Your task to perform on an android device: Go to settings Image 0: 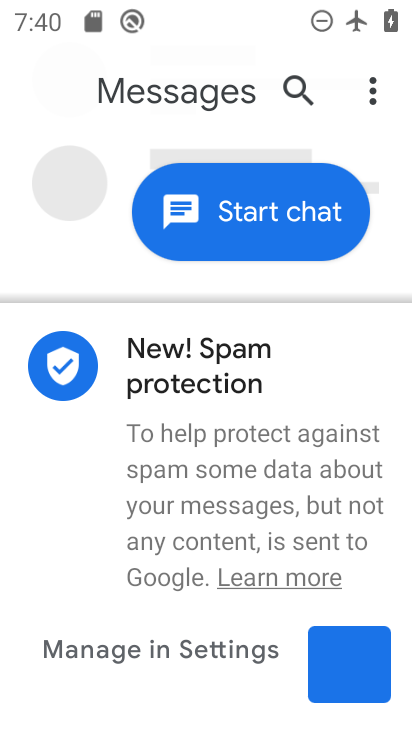
Step 0: press home button
Your task to perform on an android device: Go to settings Image 1: 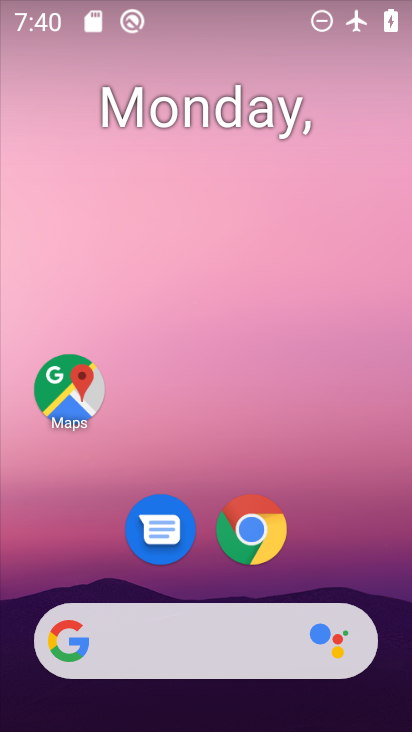
Step 1: drag from (336, 461) to (123, 11)
Your task to perform on an android device: Go to settings Image 2: 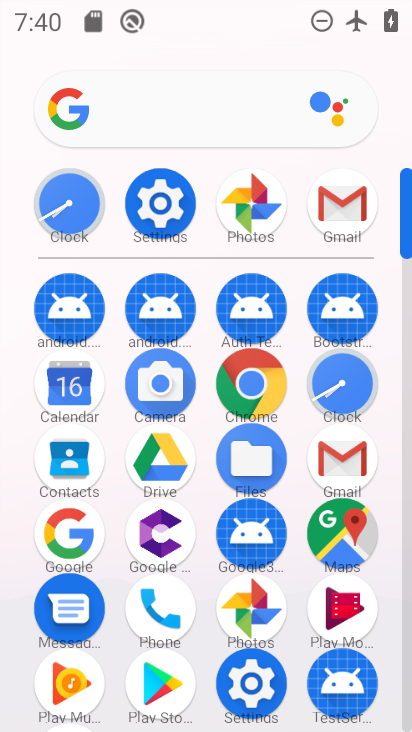
Step 2: click (156, 207)
Your task to perform on an android device: Go to settings Image 3: 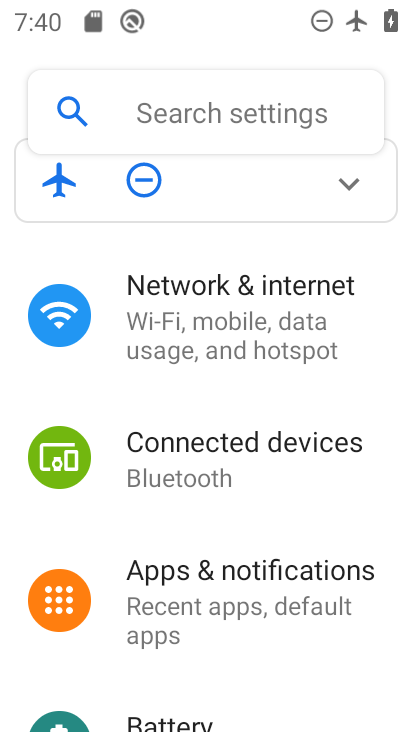
Step 3: task complete